Your task to perform on an android device: Clear the shopping cart on newegg. Add "acer nitro" to the cart on newegg Image 0: 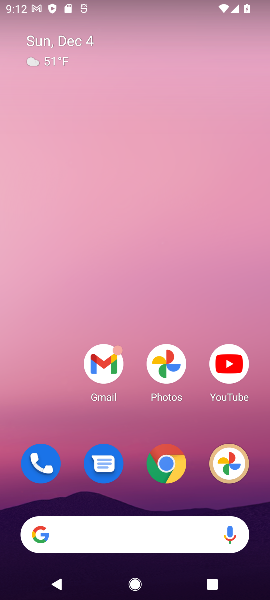
Step 0: click (120, 551)
Your task to perform on an android device: Clear the shopping cart on newegg. Add "acer nitro" to the cart on newegg Image 1: 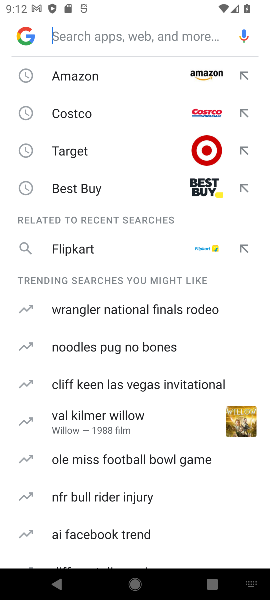
Step 1: type "newegg"
Your task to perform on an android device: Clear the shopping cart on newegg. Add "acer nitro" to the cart on newegg Image 2: 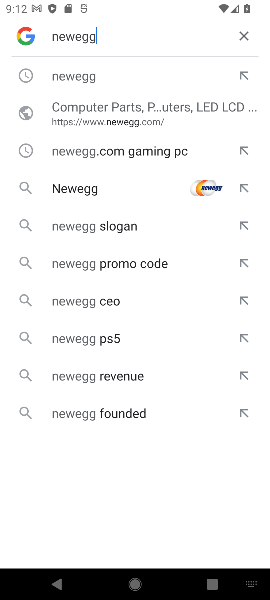
Step 2: click (135, 88)
Your task to perform on an android device: Clear the shopping cart on newegg. Add "acer nitro" to the cart on newegg Image 3: 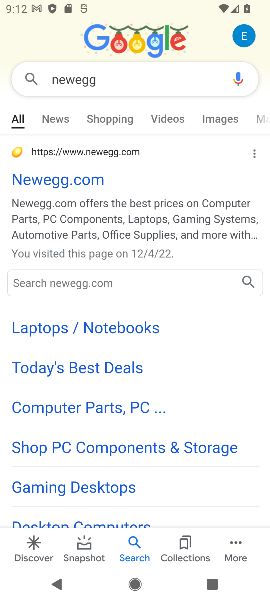
Step 3: click (43, 178)
Your task to perform on an android device: Clear the shopping cart on newegg. Add "acer nitro" to the cart on newegg Image 4: 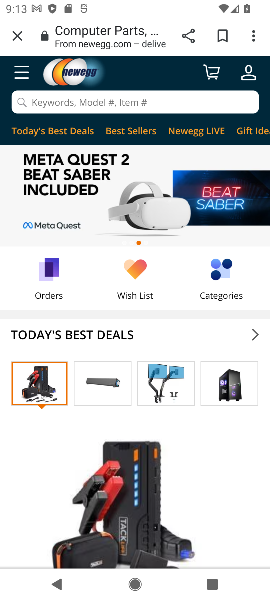
Step 4: click (135, 97)
Your task to perform on an android device: Clear the shopping cart on newegg. Add "acer nitro" to the cart on newegg Image 5: 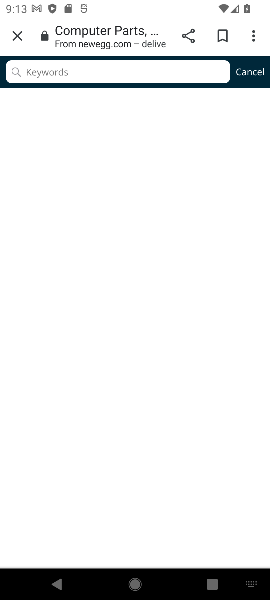
Step 5: type "acer nitro"
Your task to perform on an android device: Clear the shopping cart on newegg. Add "acer nitro" to the cart on newegg Image 6: 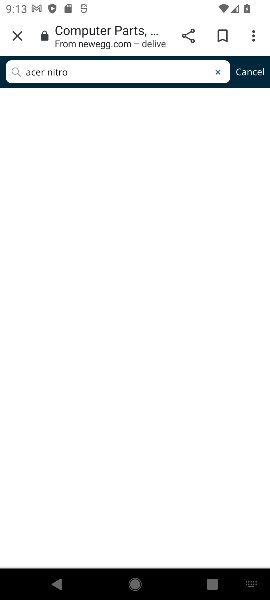
Step 6: task complete